Your task to perform on an android device: Show me popular games on the Play Store Image 0: 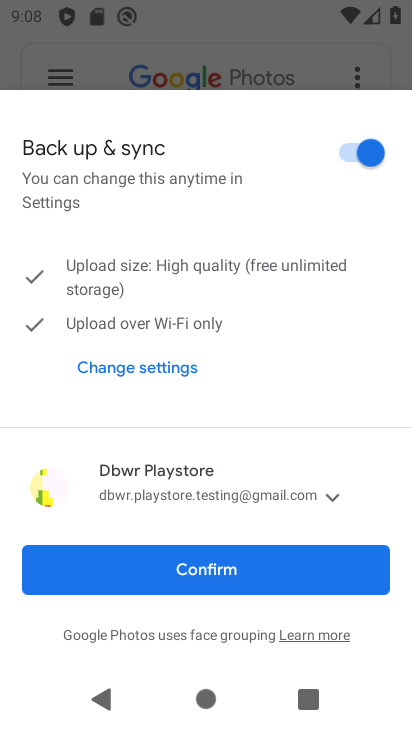
Step 0: press home button
Your task to perform on an android device: Show me popular games on the Play Store Image 1: 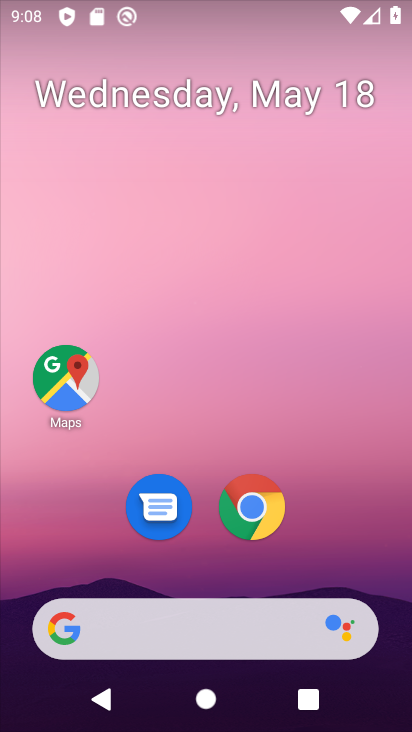
Step 1: drag from (345, 562) to (337, 40)
Your task to perform on an android device: Show me popular games on the Play Store Image 2: 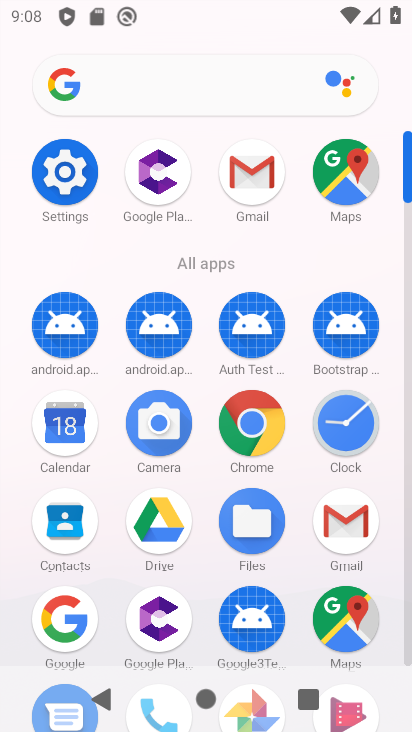
Step 2: drag from (188, 662) to (259, 189)
Your task to perform on an android device: Show me popular games on the Play Store Image 3: 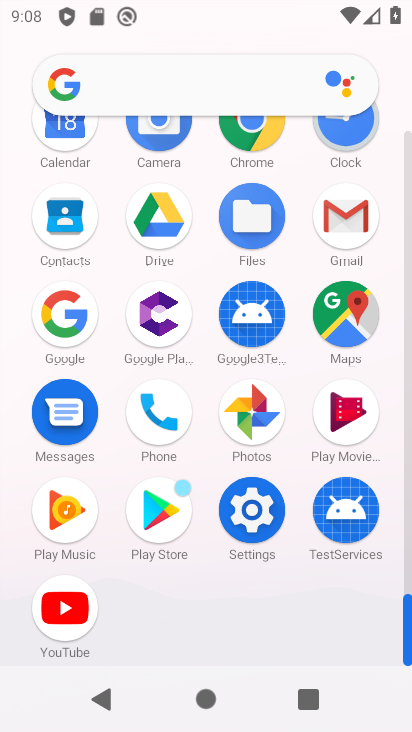
Step 3: click (162, 501)
Your task to perform on an android device: Show me popular games on the Play Store Image 4: 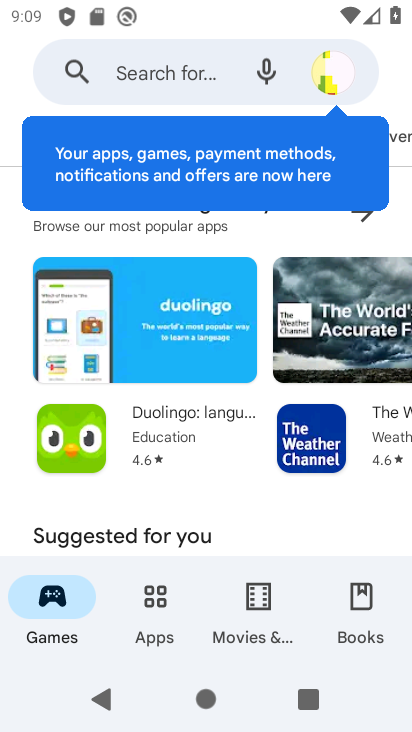
Step 4: drag from (193, 487) to (211, 75)
Your task to perform on an android device: Show me popular games on the Play Store Image 5: 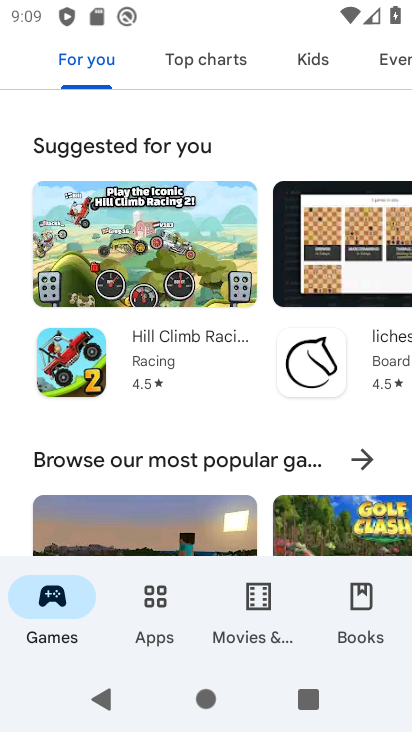
Step 5: drag from (165, 441) to (234, 104)
Your task to perform on an android device: Show me popular games on the Play Store Image 6: 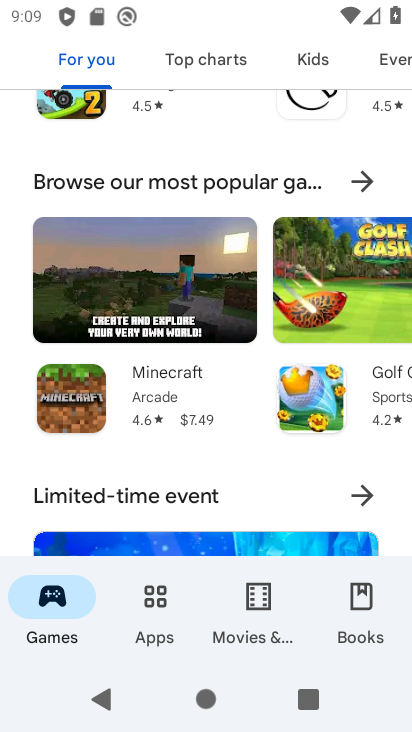
Step 6: drag from (184, 500) to (202, 269)
Your task to perform on an android device: Show me popular games on the Play Store Image 7: 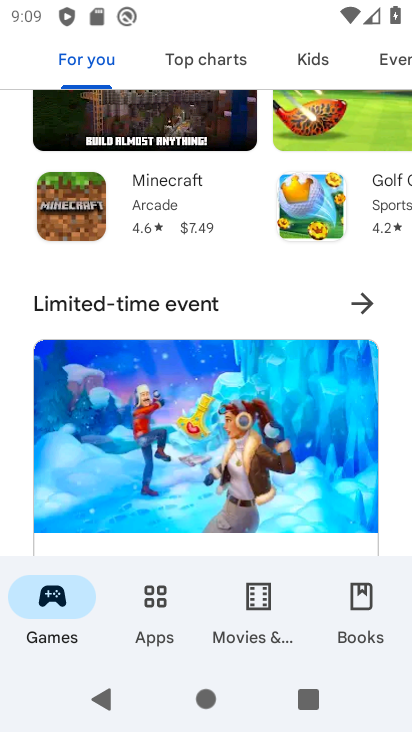
Step 7: drag from (181, 457) to (194, 223)
Your task to perform on an android device: Show me popular games on the Play Store Image 8: 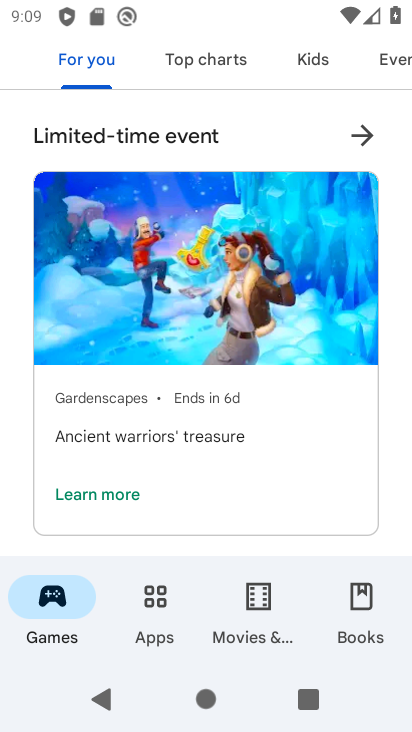
Step 8: drag from (185, 450) to (207, 173)
Your task to perform on an android device: Show me popular games on the Play Store Image 9: 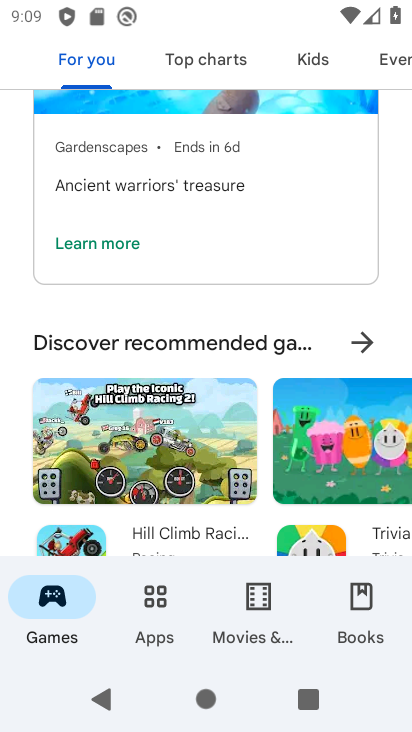
Step 9: drag from (193, 479) to (199, 351)
Your task to perform on an android device: Show me popular games on the Play Store Image 10: 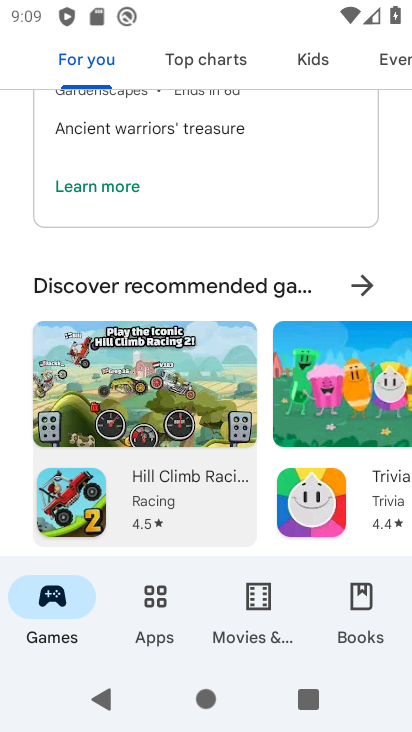
Step 10: drag from (214, 172) to (209, 103)
Your task to perform on an android device: Show me popular games on the Play Store Image 11: 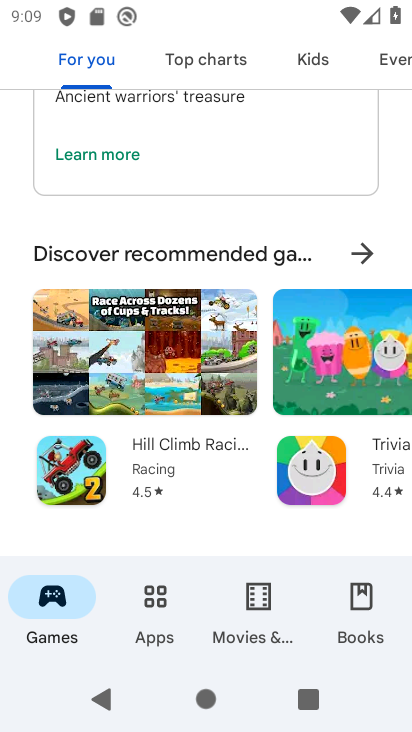
Step 11: drag from (200, 501) to (217, 162)
Your task to perform on an android device: Show me popular games on the Play Store Image 12: 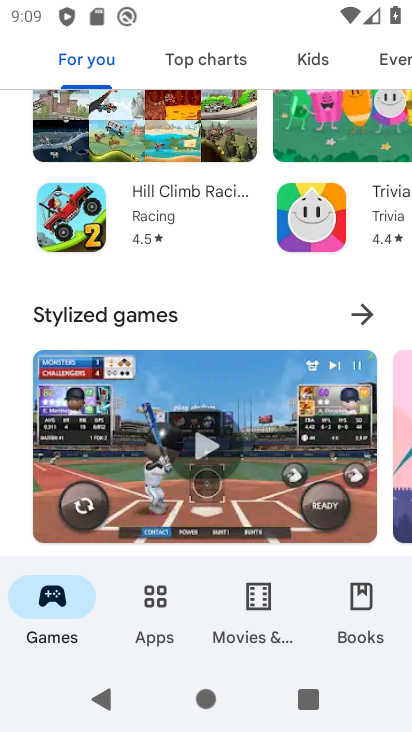
Step 12: drag from (234, 495) to (246, 169)
Your task to perform on an android device: Show me popular games on the Play Store Image 13: 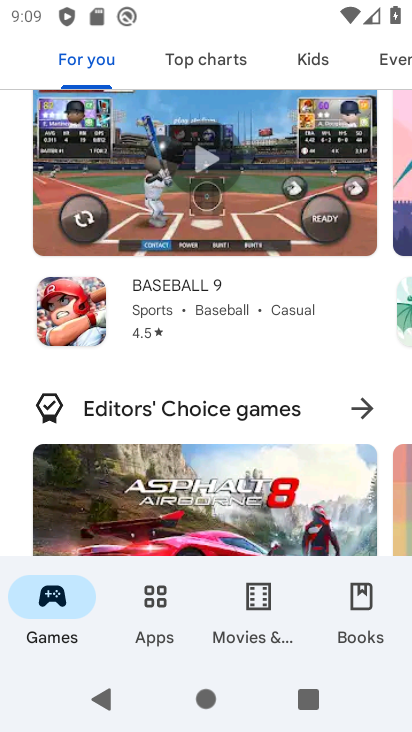
Step 13: drag from (199, 475) to (225, 190)
Your task to perform on an android device: Show me popular games on the Play Store Image 14: 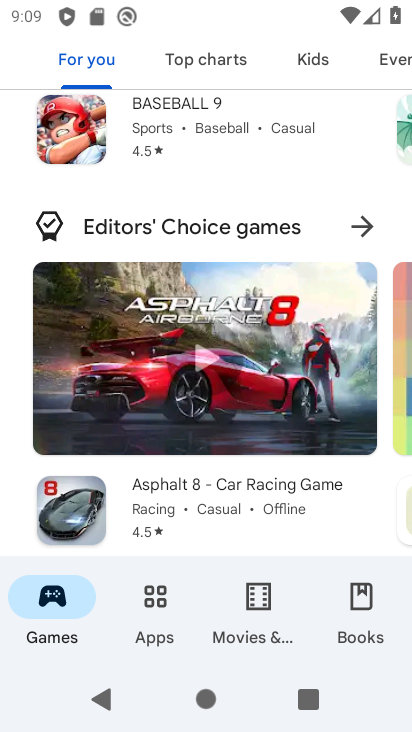
Step 14: drag from (221, 527) to (216, 194)
Your task to perform on an android device: Show me popular games on the Play Store Image 15: 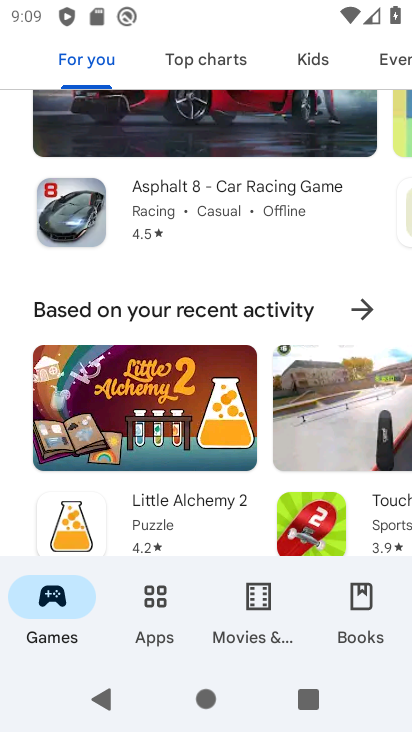
Step 15: drag from (198, 519) to (221, 219)
Your task to perform on an android device: Show me popular games on the Play Store Image 16: 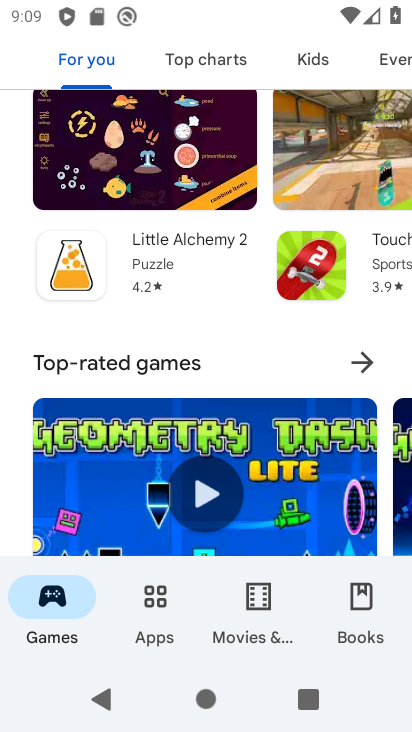
Step 16: drag from (256, 523) to (245, 247)
Your task to perform on an android device: Show me popular games on the Play Store Image 17: 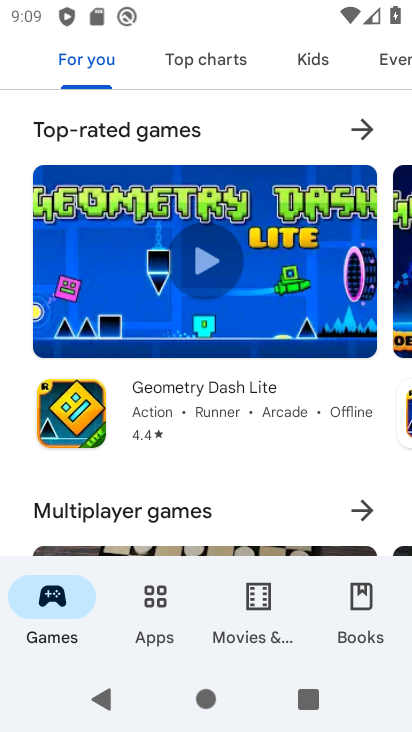
Step 17: drag from (183, 520) to (241, 181)
Your task to perform on an android device: Show me popular games on the Play Store Image 18: 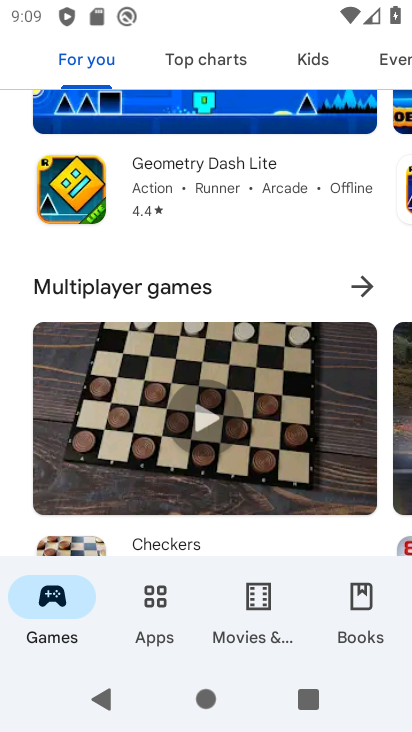
Step 18: drag from (161, 541) to (217, 219)
Your task to perform on an android device: Show me popular games on the Play Store Image 19: 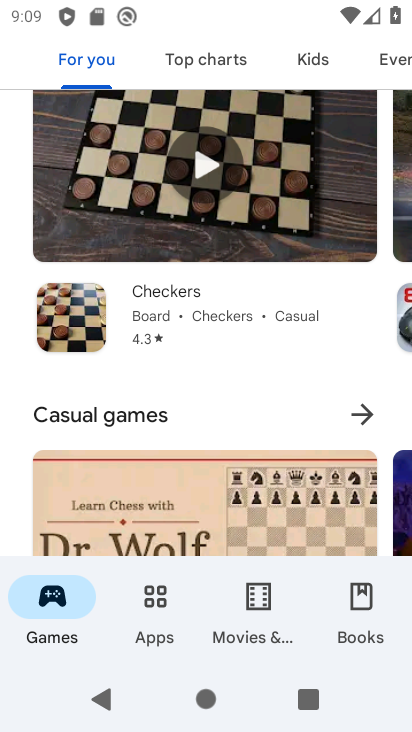
Step 19: drag from (201, 544) to (210, 117)
Your task to perform on an android device: Show me popular games on the Play Store Image 20: 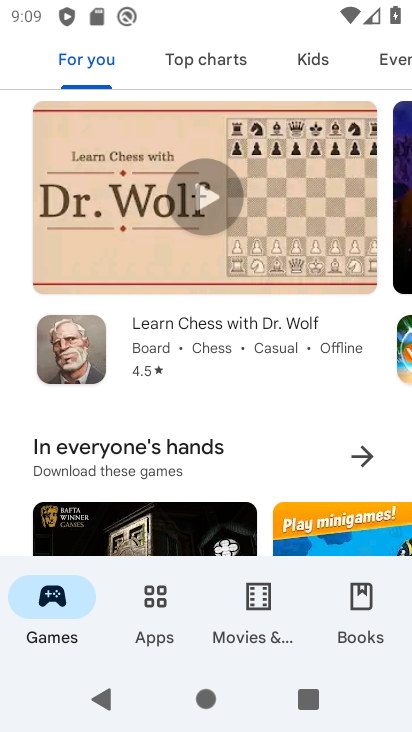
Step 20: drag from (168, 517) to (210, 112)
Your task to perform on an android device: Show me popular games on the Play Store Image 21: 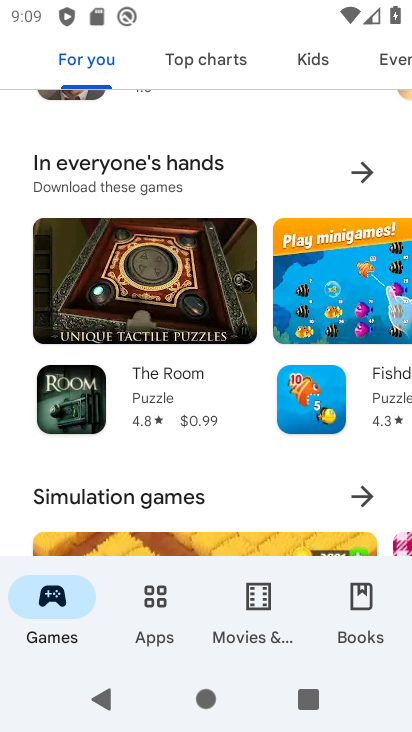
Step 21: drag from (163, 548) to (213, 223)
Your task to perform on an android device: Show me popular games on the Play Store Image 22: 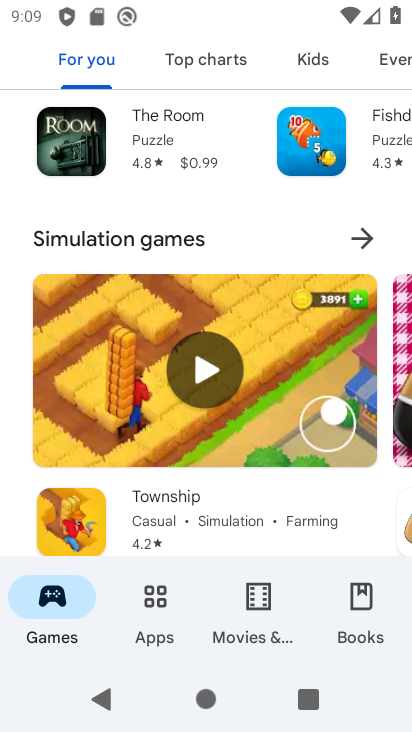
Step 22: click (212, 220)
Your task to perform on an android device: Show me popular games on the Play Store Image 23: 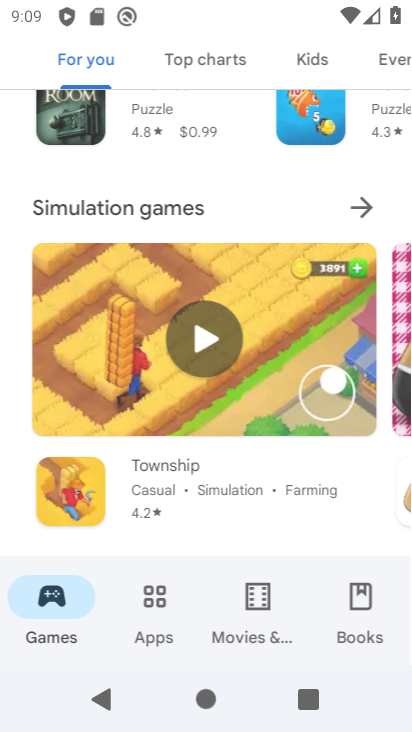
Step 23: drag from (191, 557) to (252, 138)
Your task to perform on an android device: Show me popular games on the Play Store Image 24: 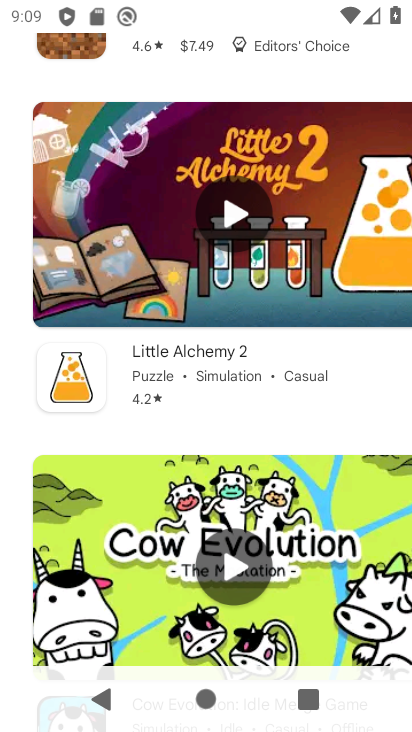
Step 24: drag from (164, 106) to (147, 699)
Your task to perform on an android device: Show me popular games on the Play Store Image 25: 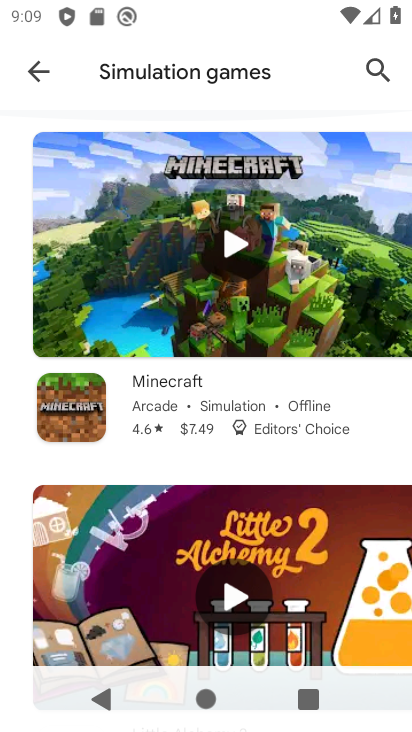
Step 25: click (35, 69)
Your task to perform on an android device: Show me popular games on the Play Store Image 26: 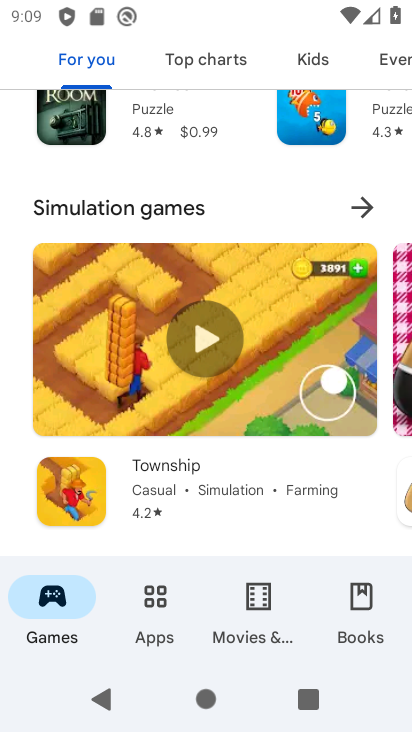
Step 26: task complete